Your task to perform on an android device: add a label to a message in the gmail app Image 0: 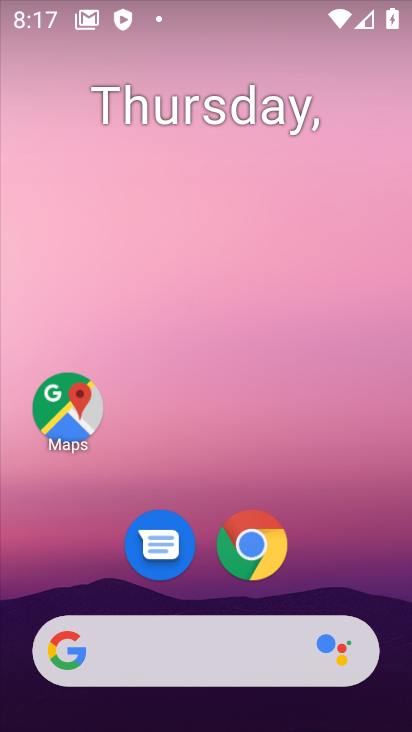
Step 0: drag from (215, 588) to (219, 100)
Your task to perform on an android device: add a label to a message in the gmail app Image 1: 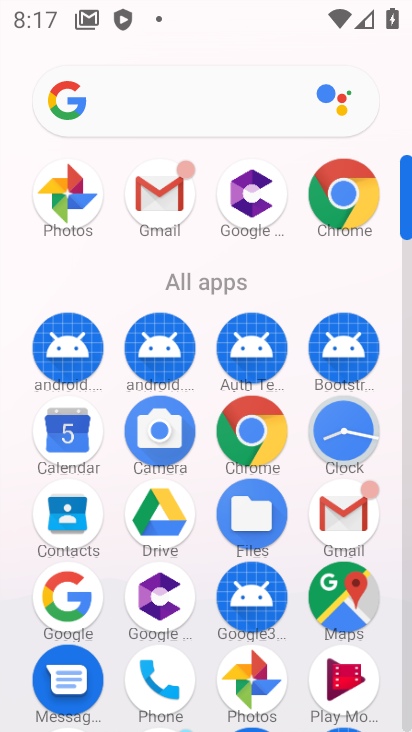
Step 1: click (179, 198)
Your task to perform on an android device: add a label to a message in the gmail app Image 2: 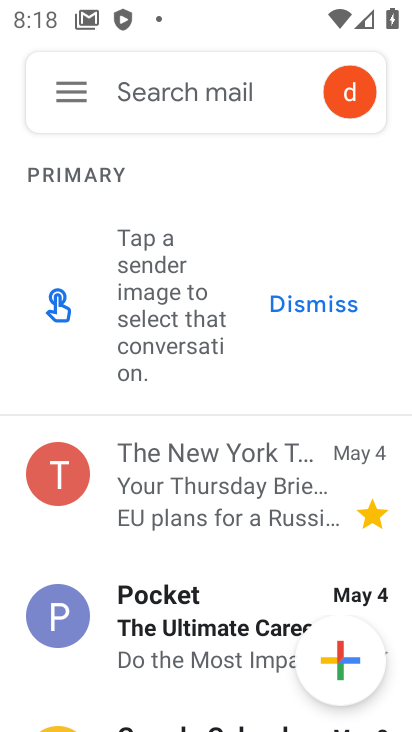
Step 2: click (48, 465)
Your task to perform on an android device: add a label to a message in the gmail app Image 3: 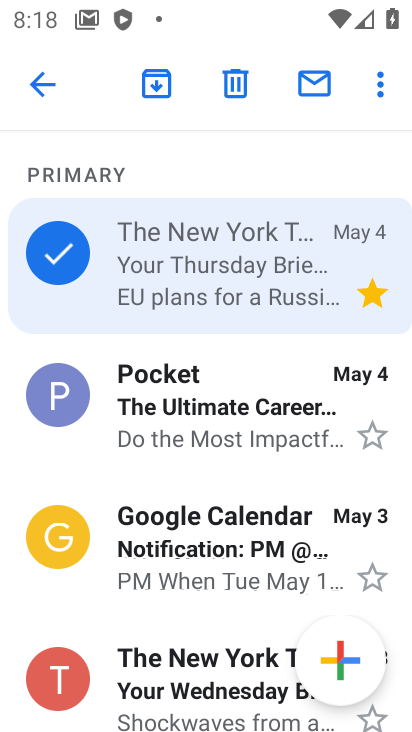
Step 3: click (389, 81)
Your task to perform on an android device: add a label to a message in the gmail app Image 4: 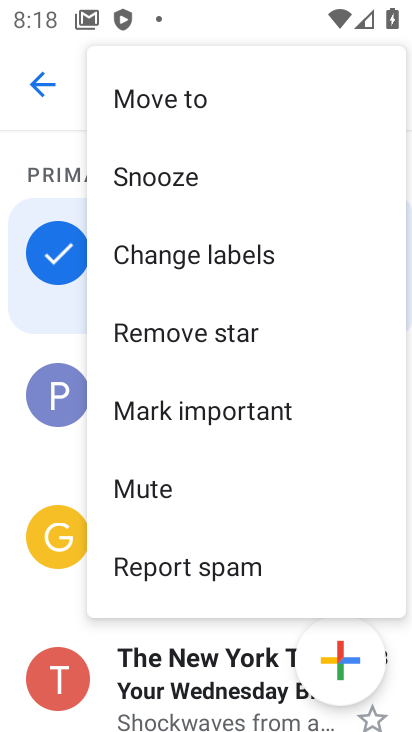
Step 4: click (191, 276)
Your task to perform on an android device: add a label to a message in the gmail app Image 5: 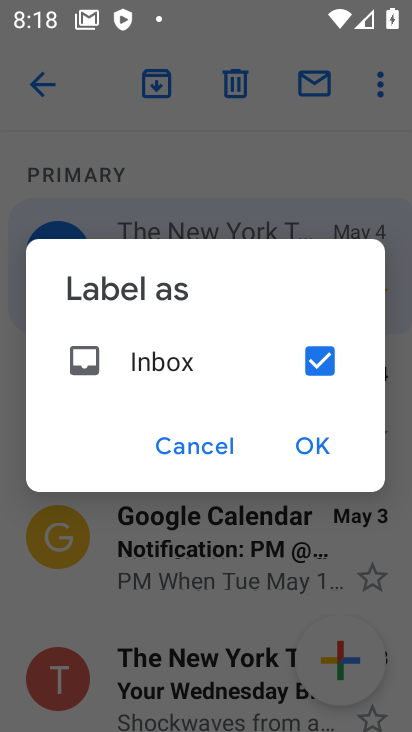
Step 5: click (338, 441)
Your task to perform on an android device: add a label to a message in the gmail app Image 6: 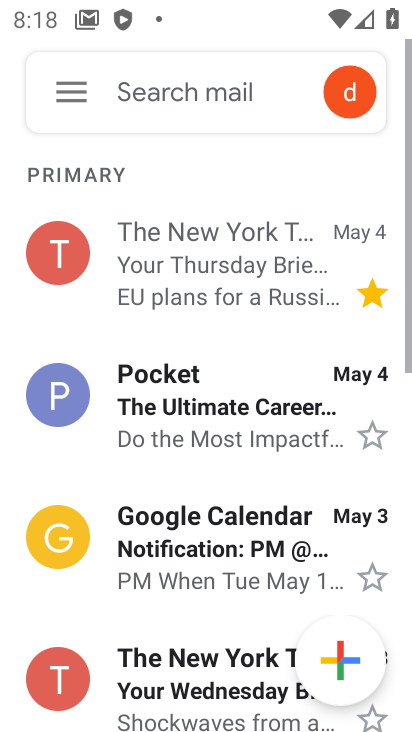
Step 6: task complete